Your task to perform on an android device: Open display settings Image 0: 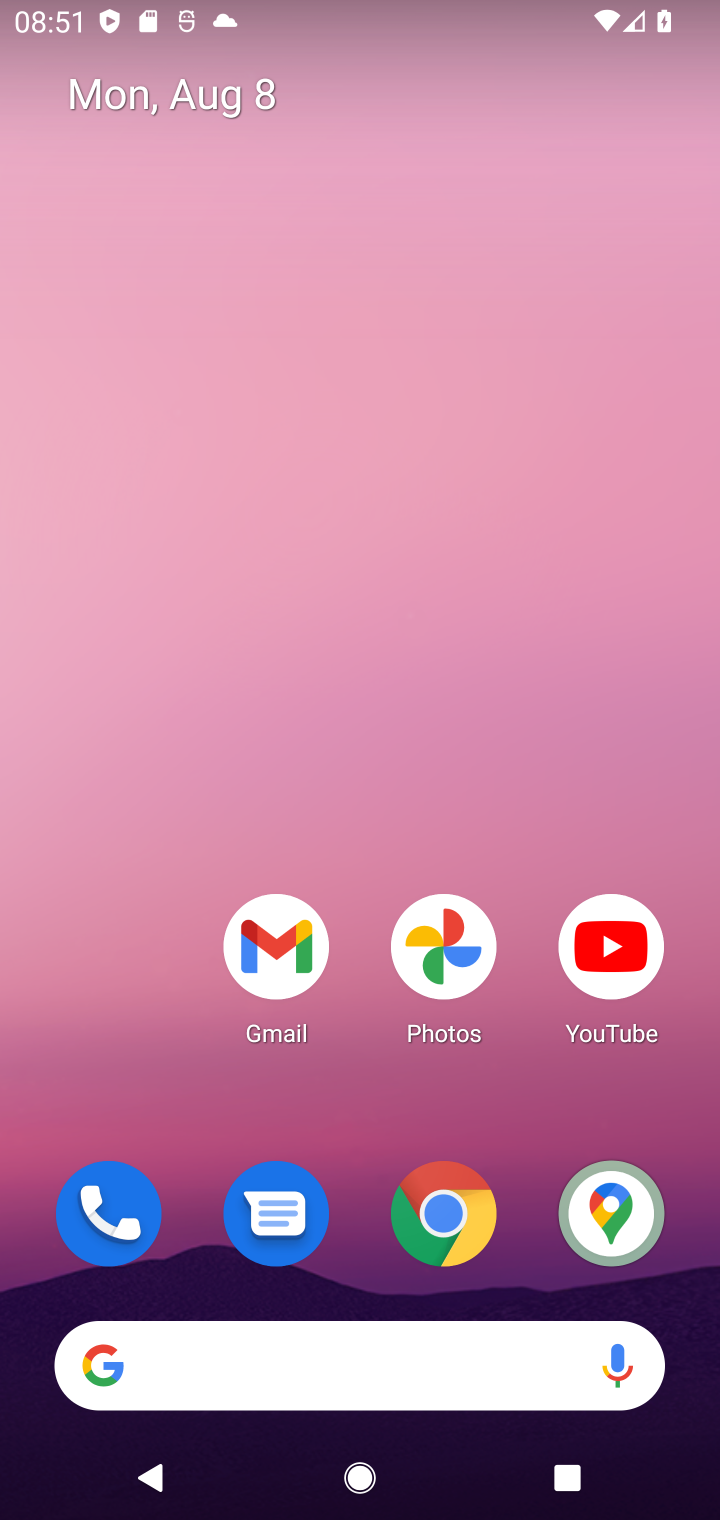
Step 0: drag from (382, 1111) to (328, 454)
Your task to perform on an android device: Open display settings Image 1: 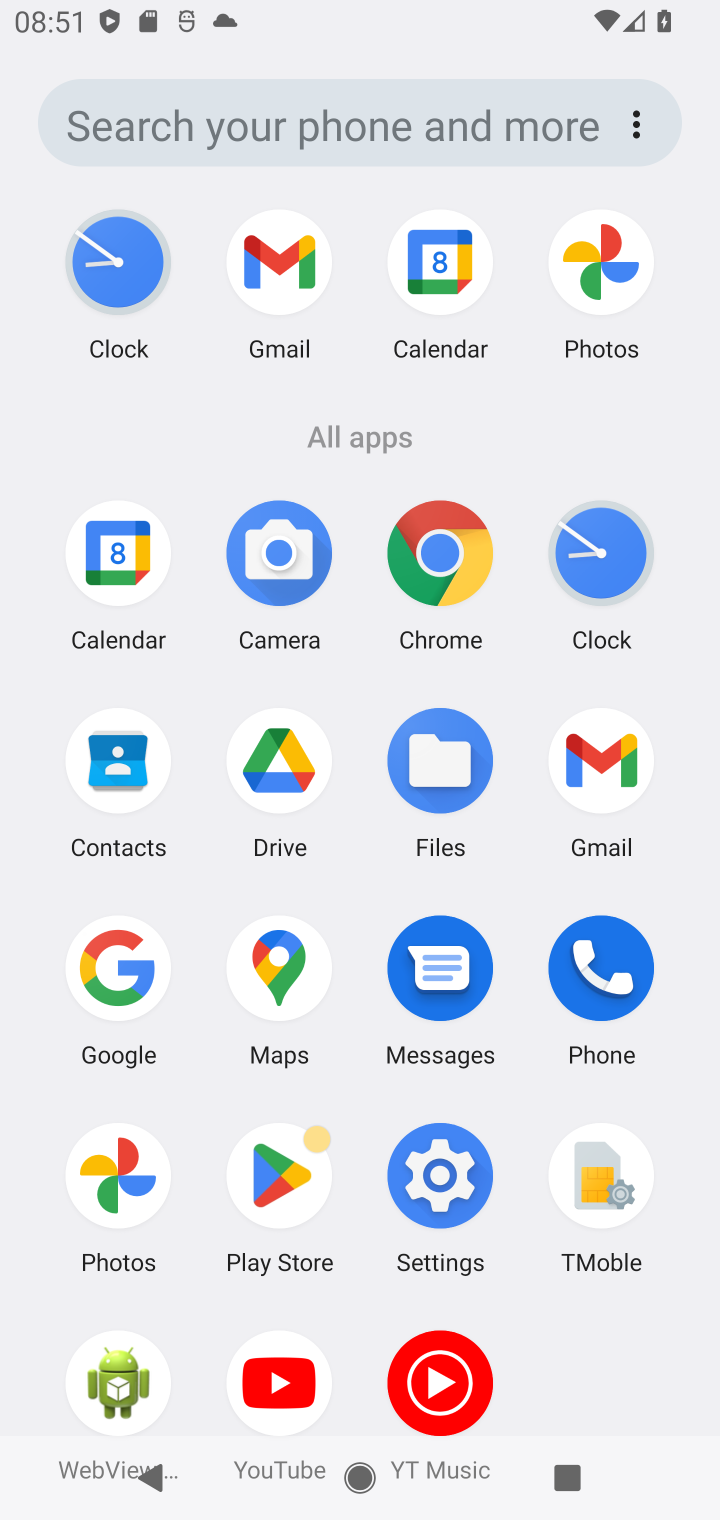
Step 1: click (445, 1187)
Your task to perform on an android device: Open display settings Image 2: 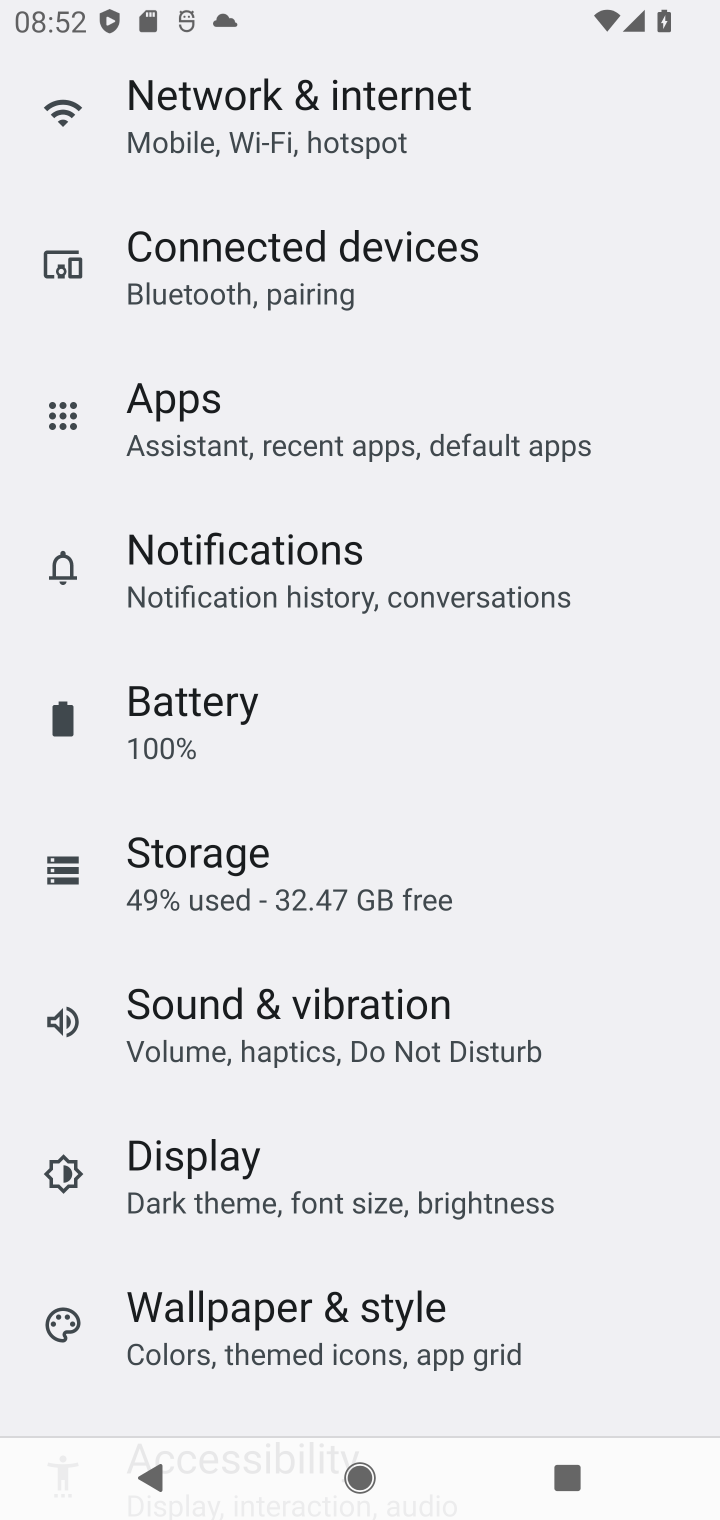
Step 2: click (316, 1149)
Your task to perform on an android device: Open display settings Image 3: 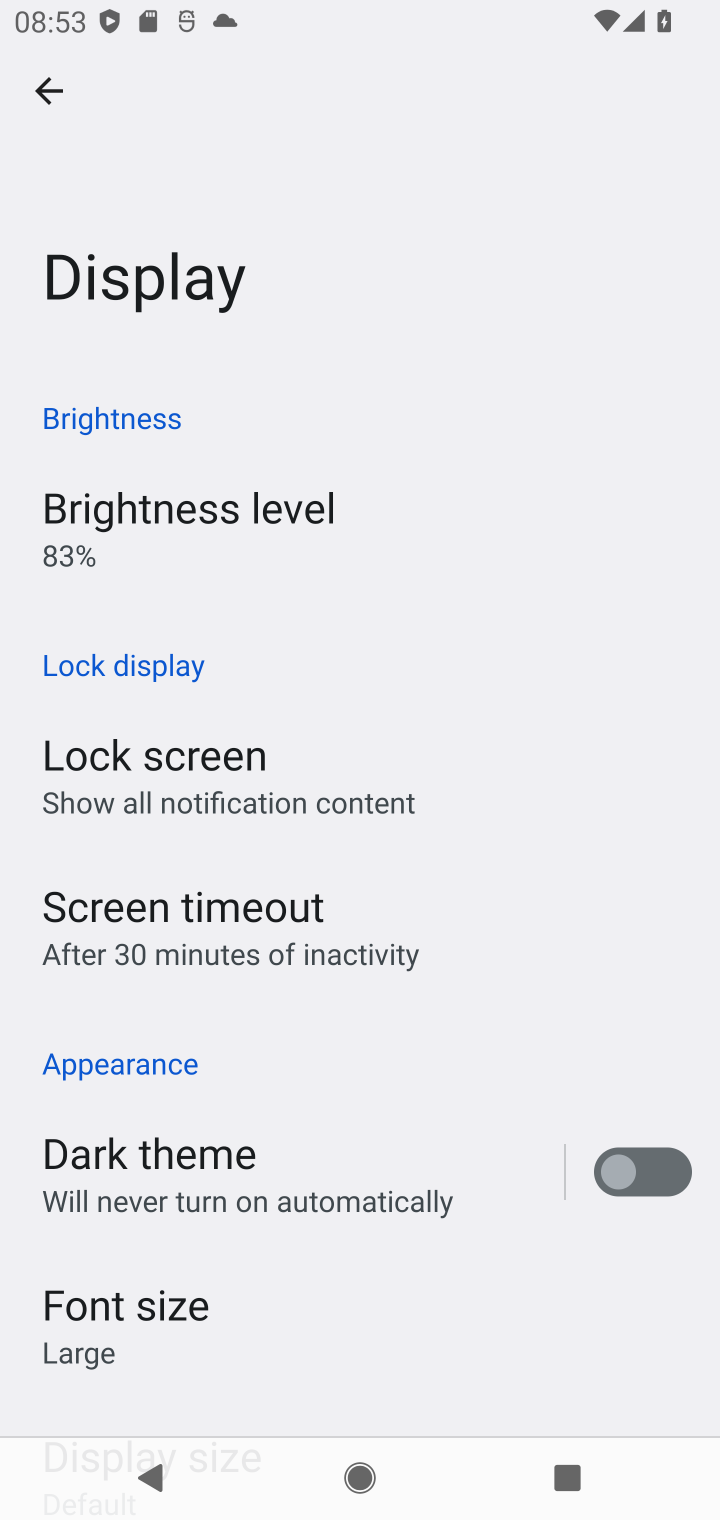
Step 3: task complete